Your task to perform on an android device: Open the map Image 0: 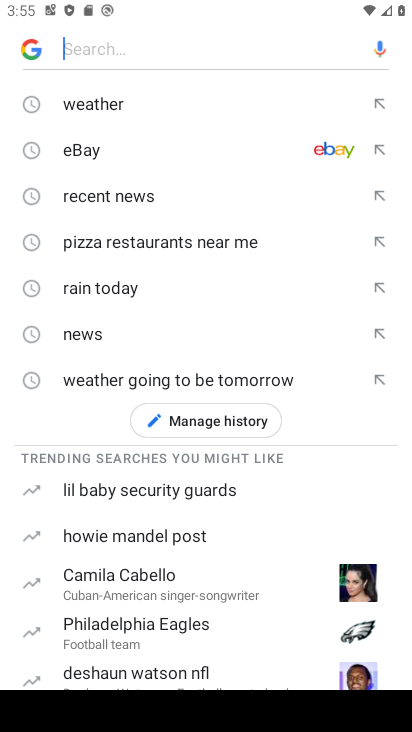
Step 0: press back button
Your task to perform on an android device: Open the map Image 1: 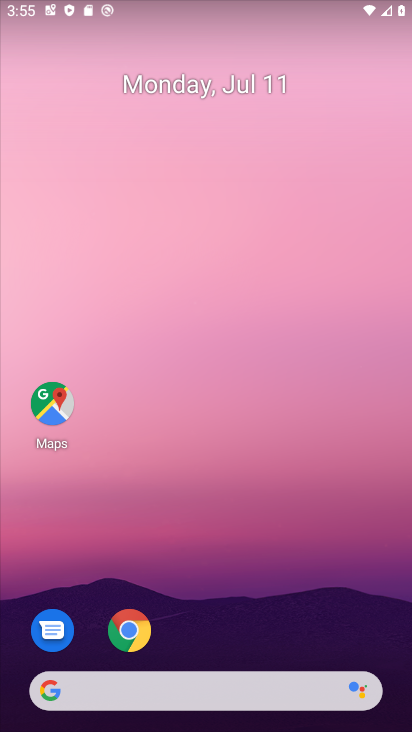
Step 1: drag from (243, 689) to (133, 168)
Your task to perform on an android device: Open the map Image 2: 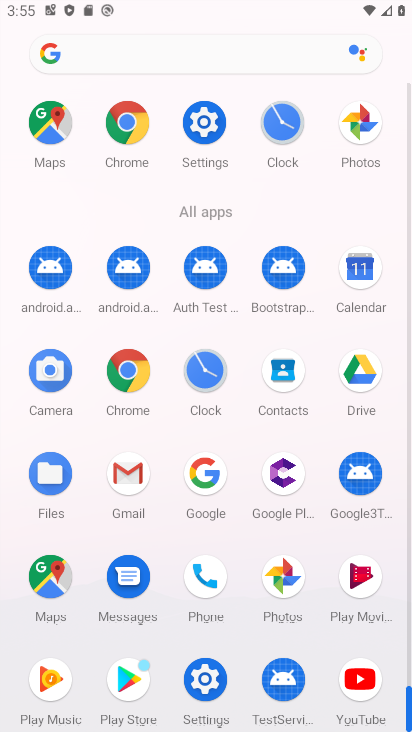
Step 2: click (46, 583)
Your task to perform on an android device: Open the map Image 3: 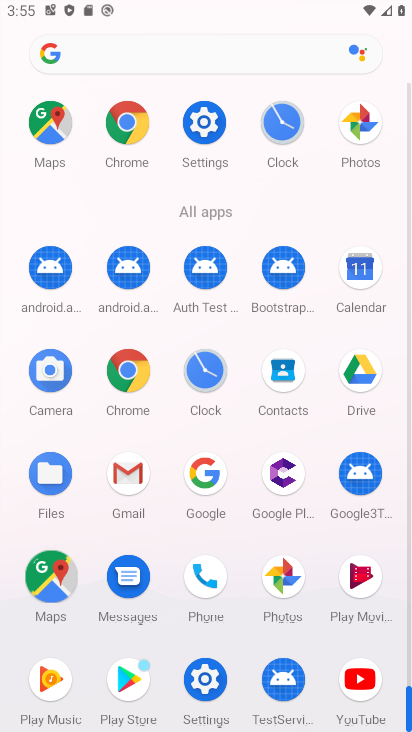
Step 3: click (46, 583)
Your task to perform on an android device: Open the map Image 4: 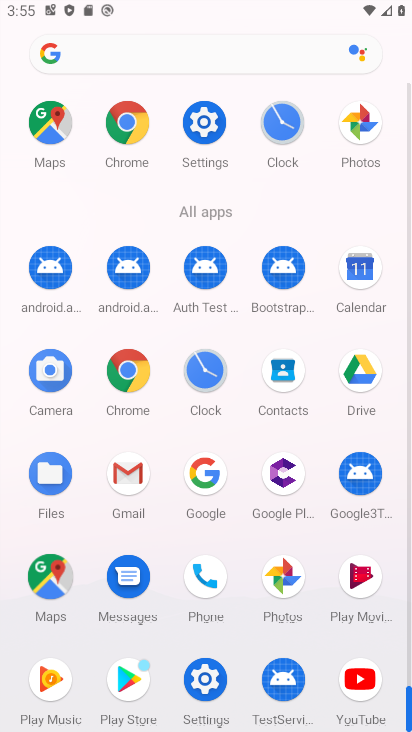
Step 4: click (46, 583)
Your task to perform on an android device: Open the map Image 5: 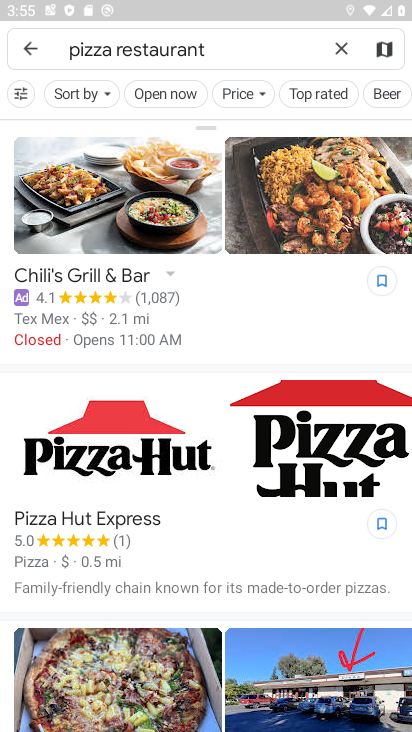
Step 5: drag from (127, 93) to (130, 398)
Your task to perform on an android device: Open the map Image 6: 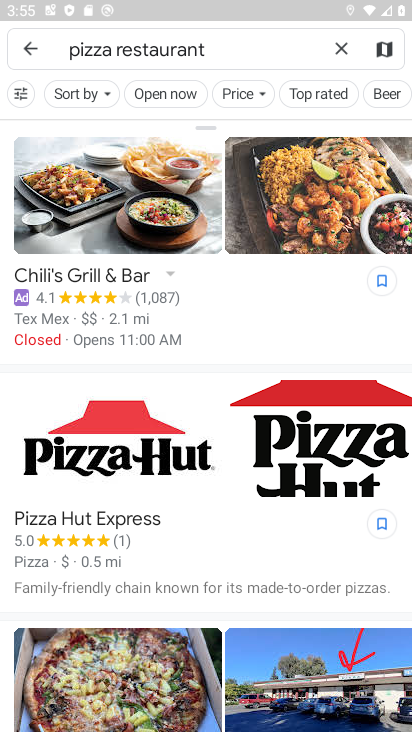
Step 6: drag from (128, 193) to (164, 566)
Your task to perform on an android device: Open the map Image 7: 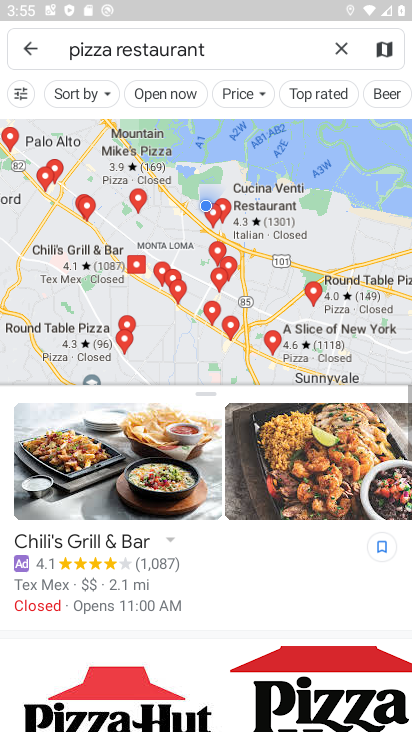
Step 7: drag from (223, 369) to (304, 528)
Your task to perform on an android device: Open the map Image 8: 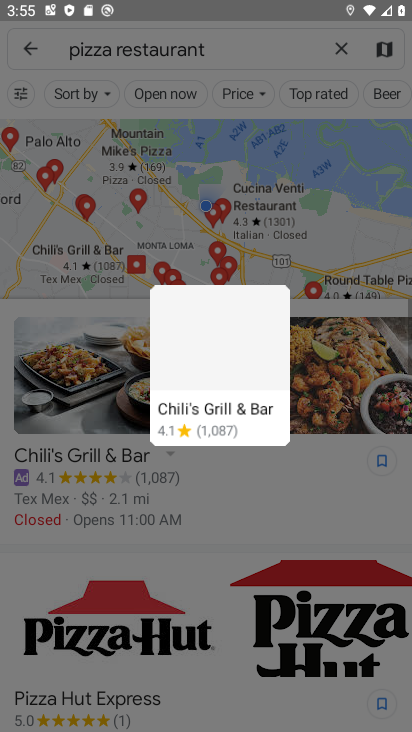
Step 8: drag from (280, 416) to (281, 613)
Your task to perform on an android device: Open the map Image 9: 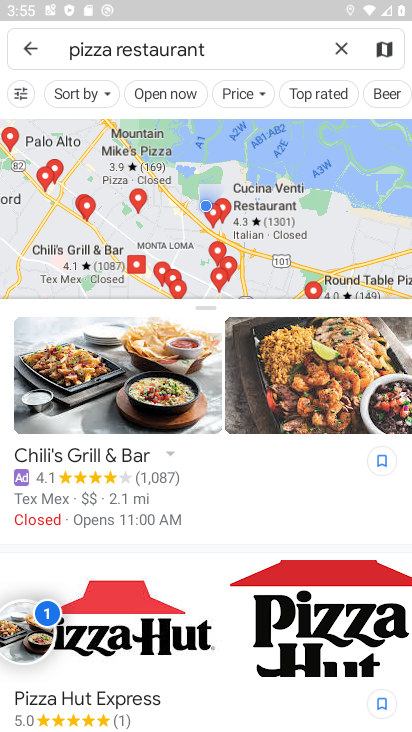
Step 9: click (15, 46)
Your task to perform on an android device: Open the map Image 10: 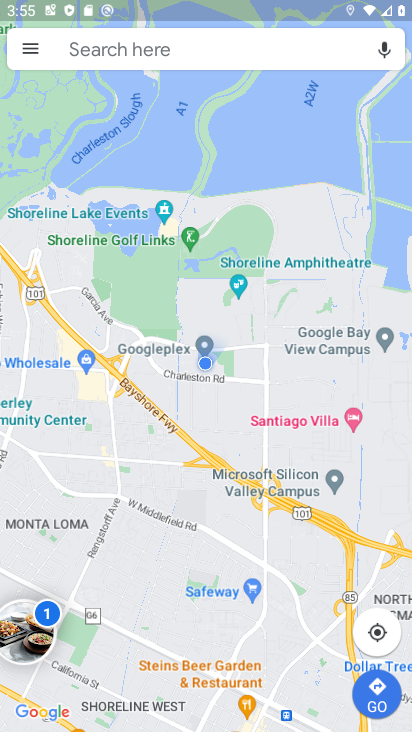
Step 10: task complete